Your task to perform on an android device: check battery use Image 0: 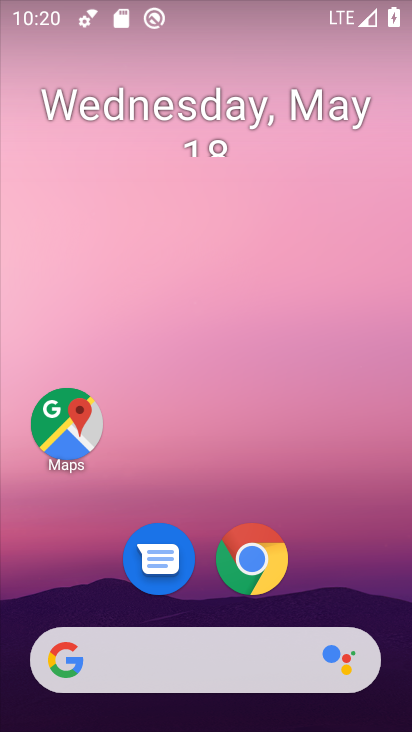
Step 0: drag from (198, 608) to (256, 5)
Your task to perform on an android device: check battery use Image 1: 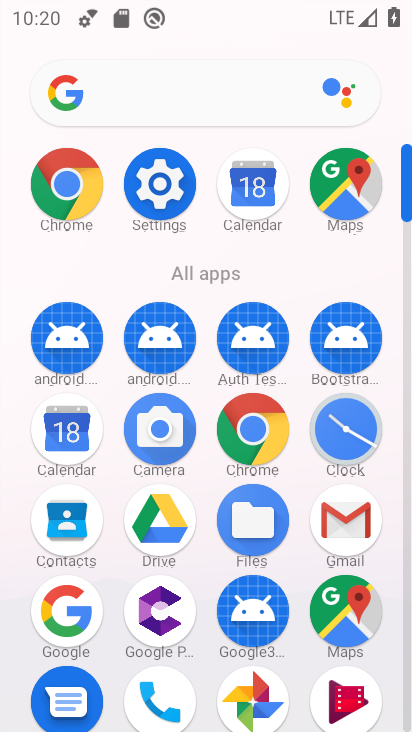
Step 1: click (169, 206)
Your task to perform on an android device: check battery use Image 2: 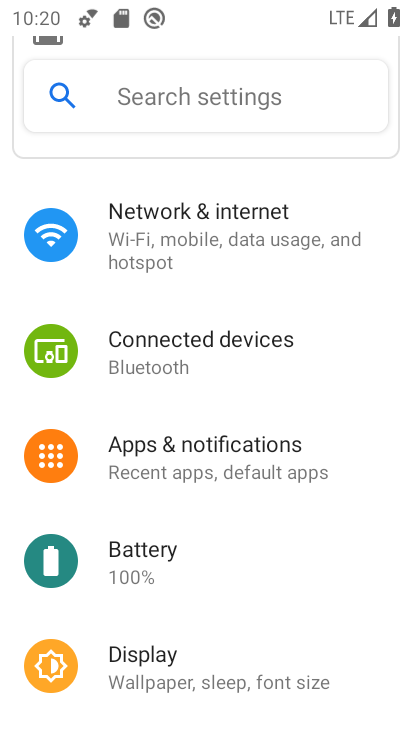
Step 2: click (158, 561)
Your task to perform on an android device: check battery use Image 3: 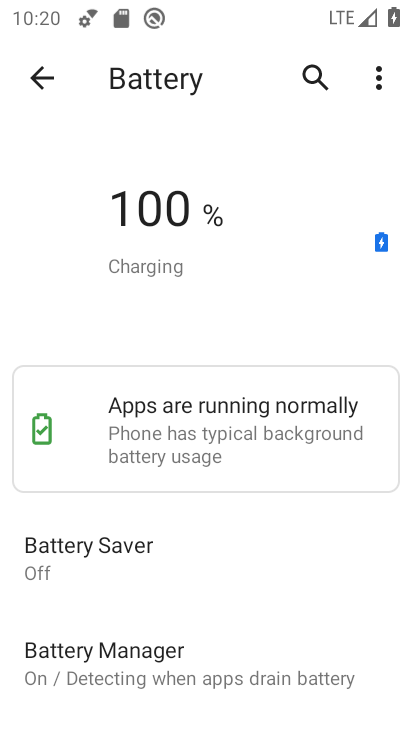
Step 3: click (372, 101)
Your task to perform on an android device: check battery use Image 4: 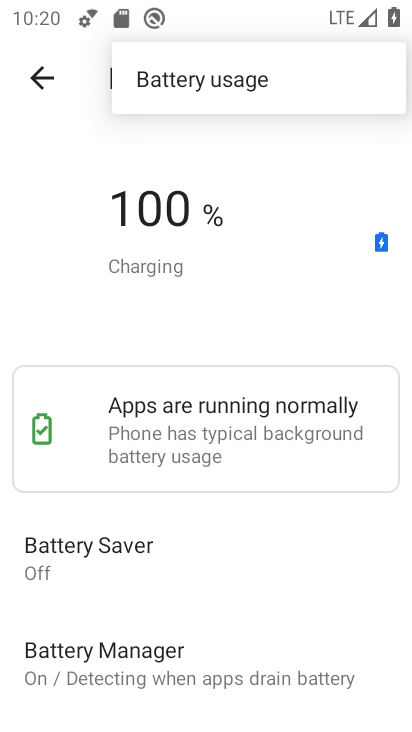
Step 4: click (259, 92)
Your task to perform on an android device: check battery use Image 5: 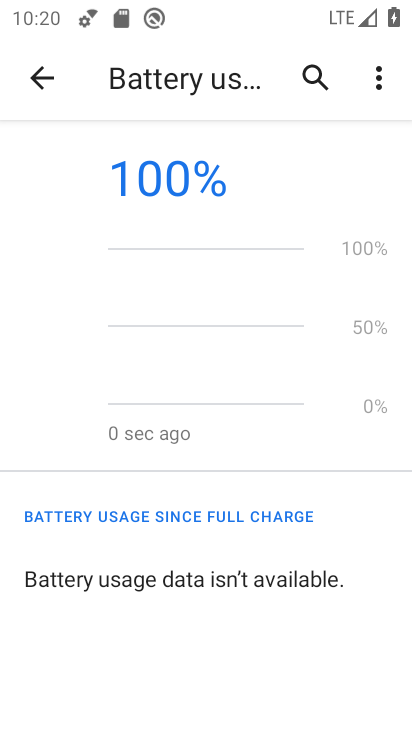
Step 5: task complete